Your task to perform on an android device: change the upload size in google photos Image 0: 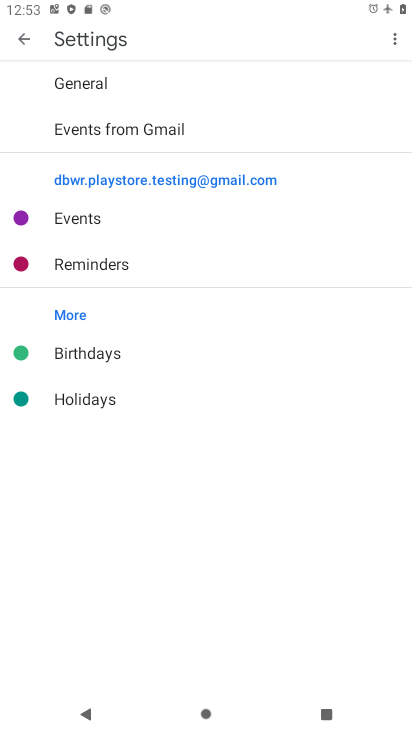
Step 0: press home button
Your task to perform on an android device: change the upload size in google photos Image 1: 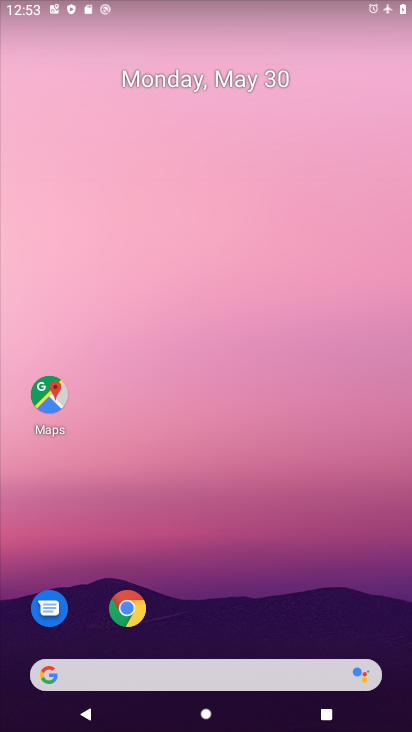
Step 1: drag from (189, 586) to (202, 134)
Your task to perform on an android device: change the upload size in google photos Image 2: 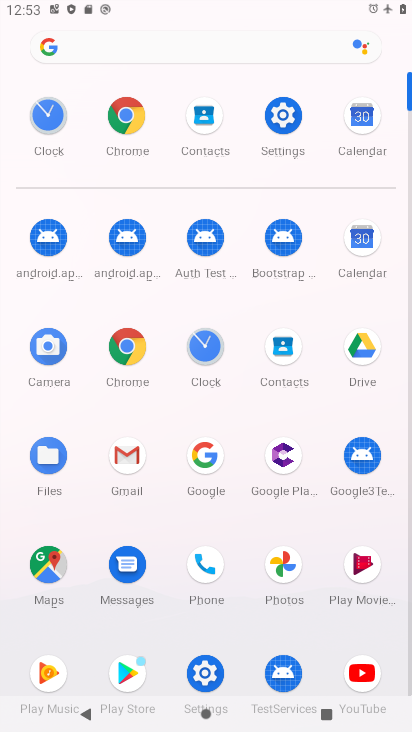
Step 2: click (281, 555)
Your task to perform on an android device: change the upload size in google photos Image 3: 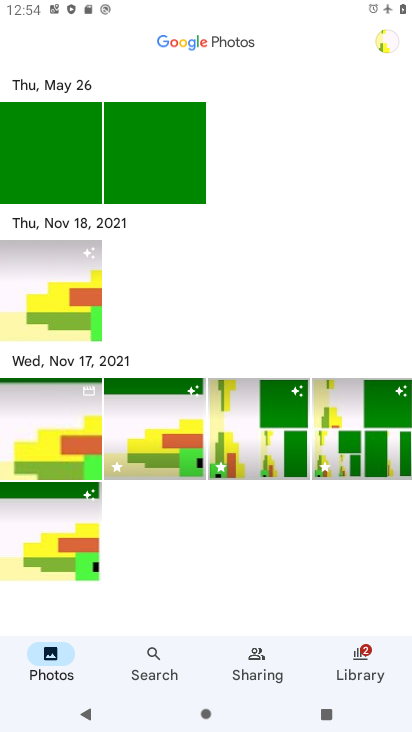
Step 3: drag from (213, 522) to (159, 104)
Your task to perform on an android device: change the upload size in google photos Image 4: 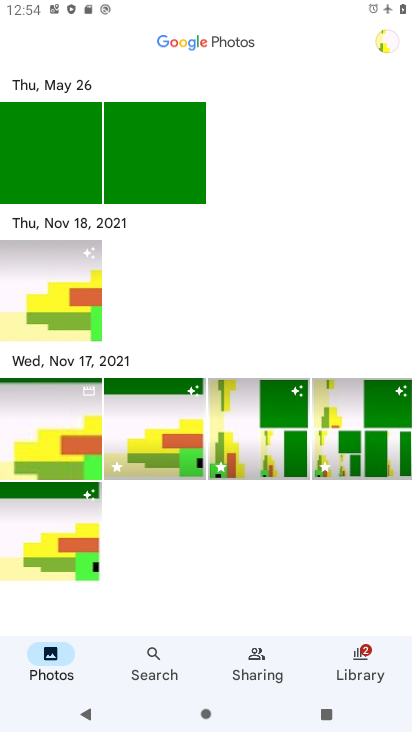
Step 4: click (384, 33)
Your task to perform on an android device: change the upload size in google photos Image 5: 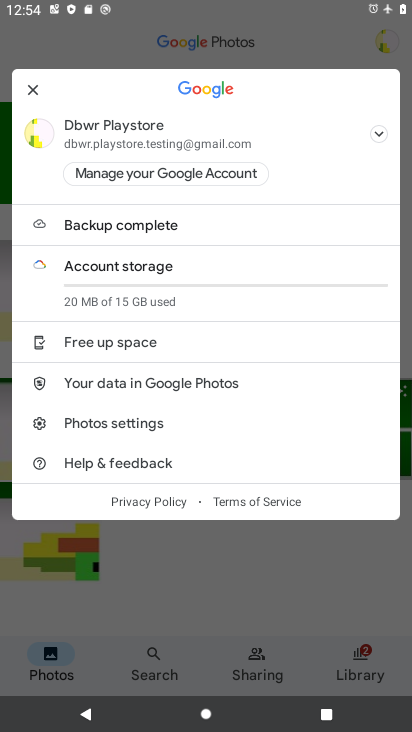
Step 5: click (103, 415)
Your task to perform on an android device: change the upload size in google photos Image 6: 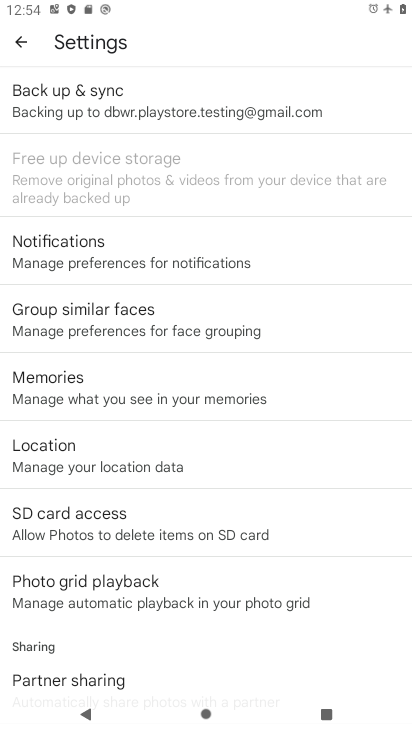
Step 6: drag from (196, 582) to (194, 353)
Your task to perform on an android device: change the upload size in google photos Image 7: 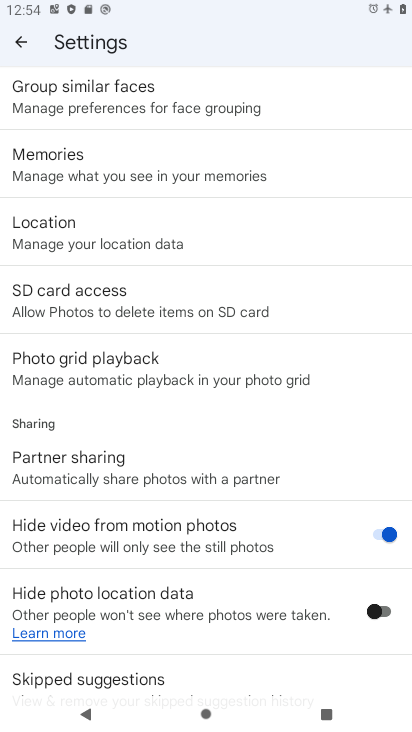
Step 7: drag from (187, 528) to (194, 148)
Your task to perform on an android device: change the upload size in google photos Image 8: 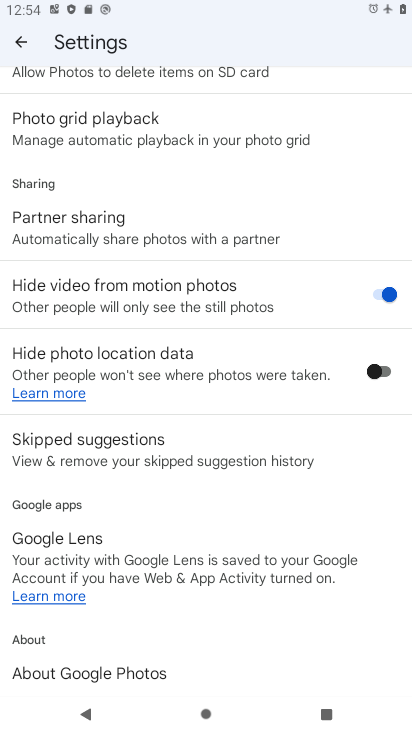
Step 8: drag from (185, 470) to (200, 164)
Your task to perform on an android device: change the upload size in google photos Image 9: 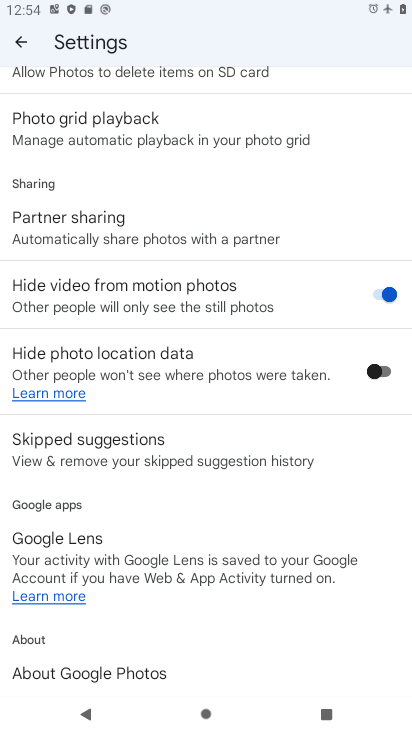
Step 9: click (128, 669)
Your task to perform on an android device: change the upload size in google photos Image 10: 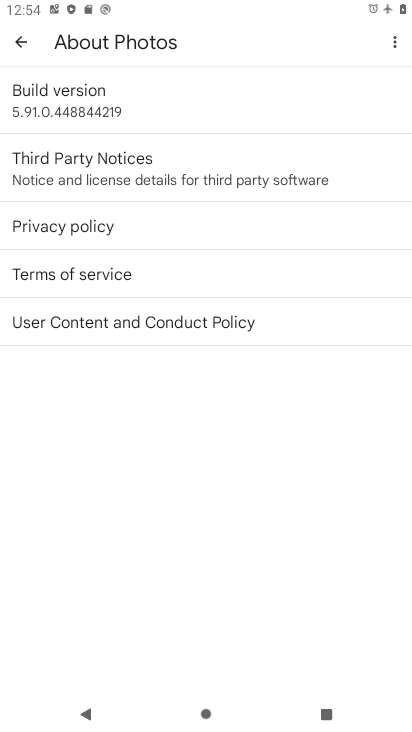
Step 10: press back button
Your task to perform on an android device: change the upload size in google photos Image 11: 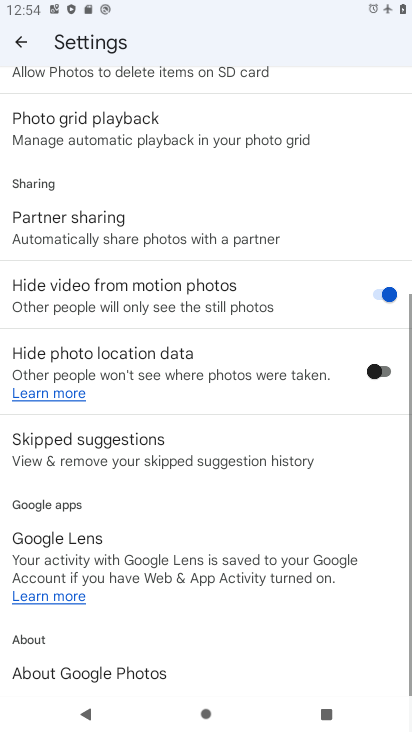
Step 11: press back button
Your task to perform on an android device: change the upload size in google photos Image 12: 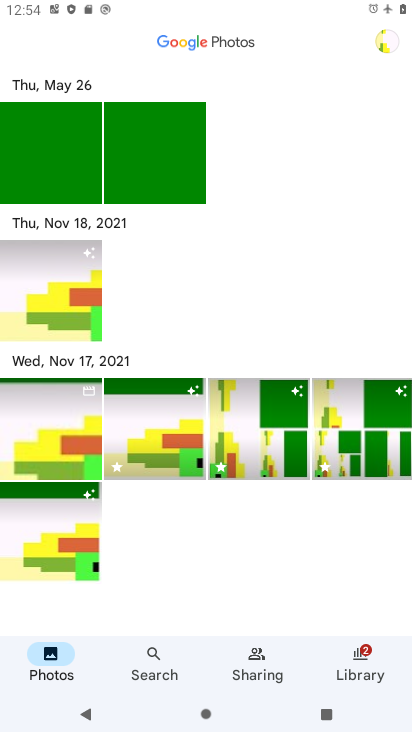
Step 12: click (15, 411)
Your task to perform on an android device: change the upload size in google photos Image 13: 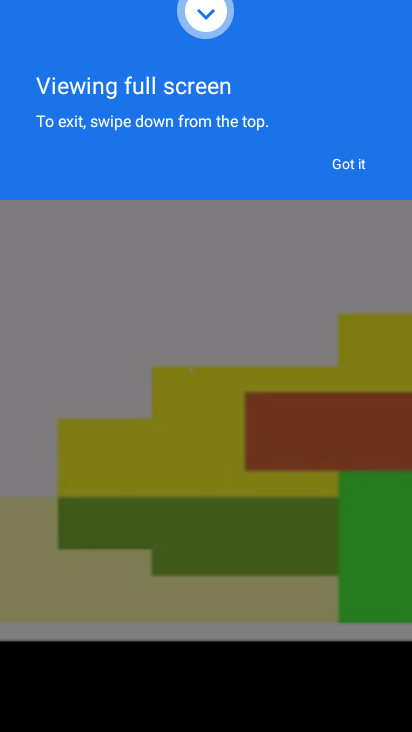
Step 13: click (365, 166)
Your task to perform on an android device: change the upload size in google photos Image 14: 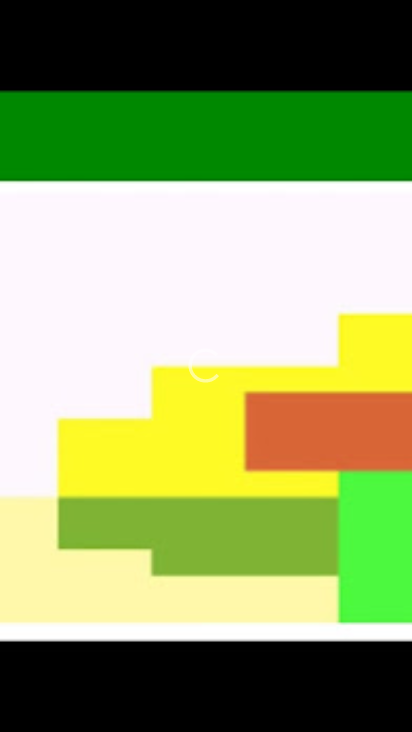
Step 14: press back button
Your task to perform on an android device: change the upload size in google photos Image 15: 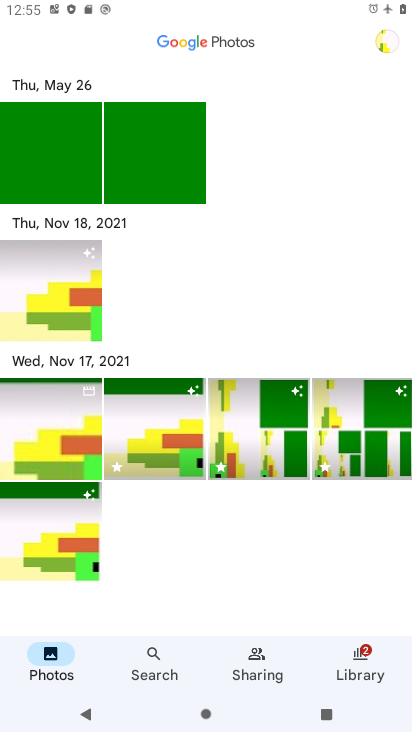
Step 15: click (36, 427)
Your task to perform on an android device: change the upload size in google photos Image 16: 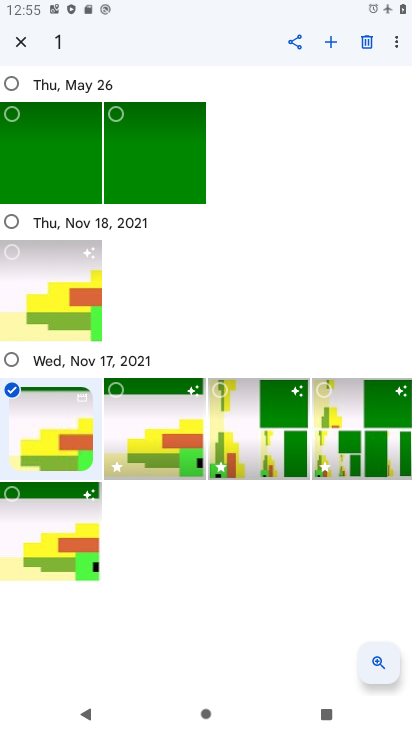
Step 16: click (405, 37)
Your task to perform on an android device: change the upload size in google photos Image 17: 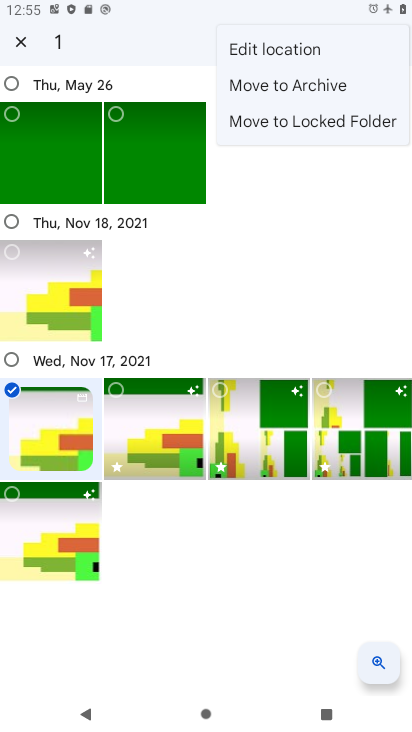
Step 17: click (192, 231)
Your task to perform on an android device: change the upload size in google photos Image 18: 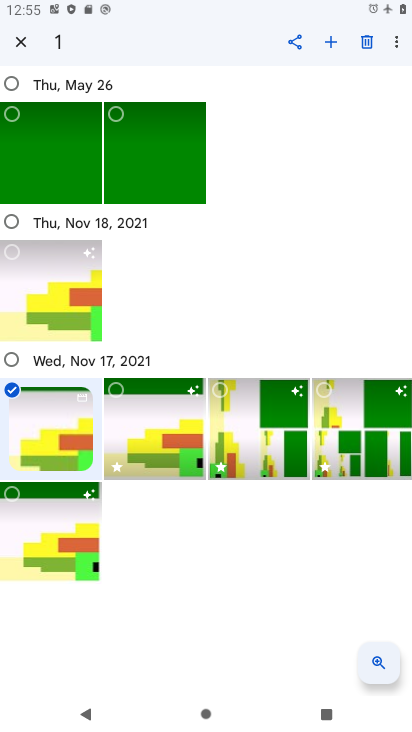
Step 18: click (337, 38)
Your task to perform on an android device: change the upload size in google photos Image 19: 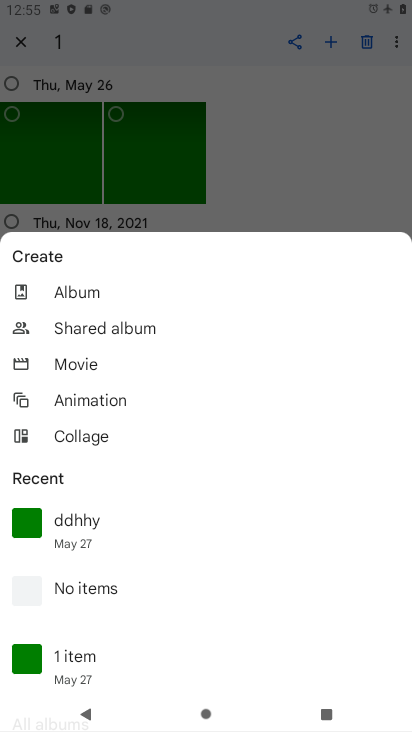
Step 19: task complete